Your task to perform on an android device: change keyboard looks Image 0: 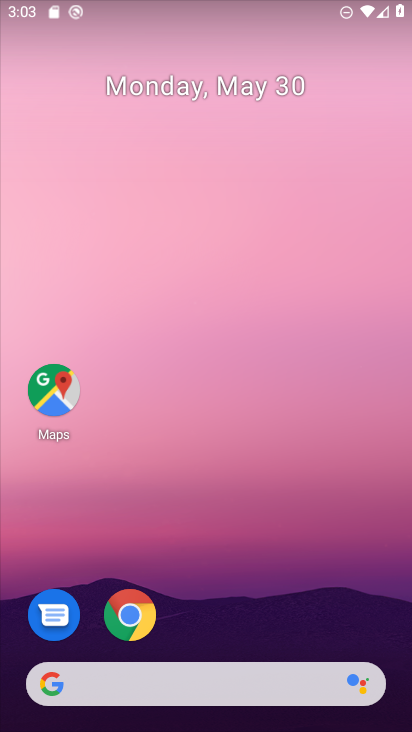
Step 0: drag from (366, 564) to (287, 16)
Your task to perform on an android device: change keyboard looks Image 1: 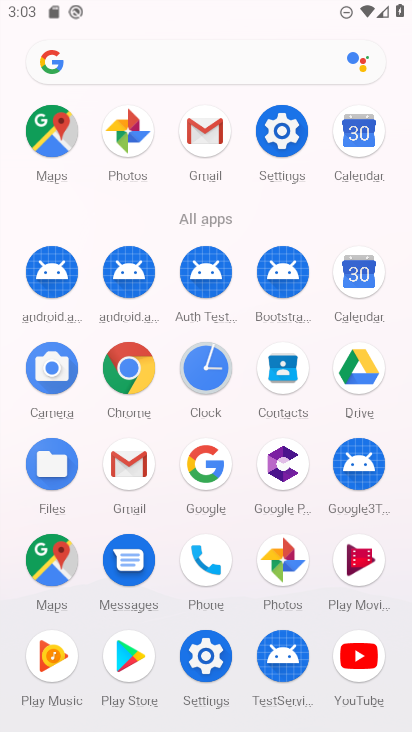
Step 1: click (284, 112)
Your task to perform on an android device: change keyboard looks Image 2: 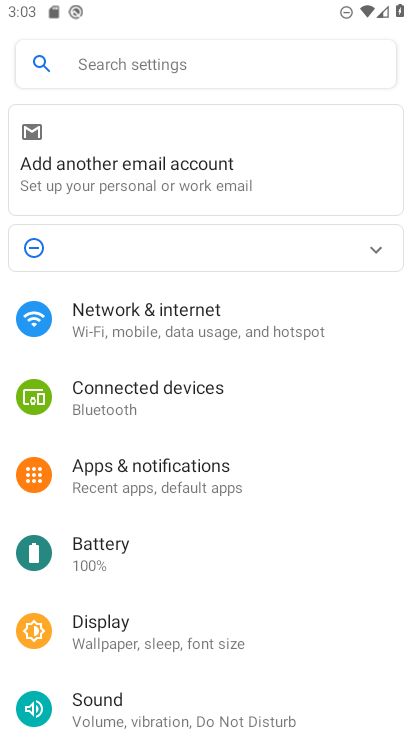
Step 2: drag from (280, 572) to (257, 42)
Your task to perform on an android device: change keyboard looks Image 3: 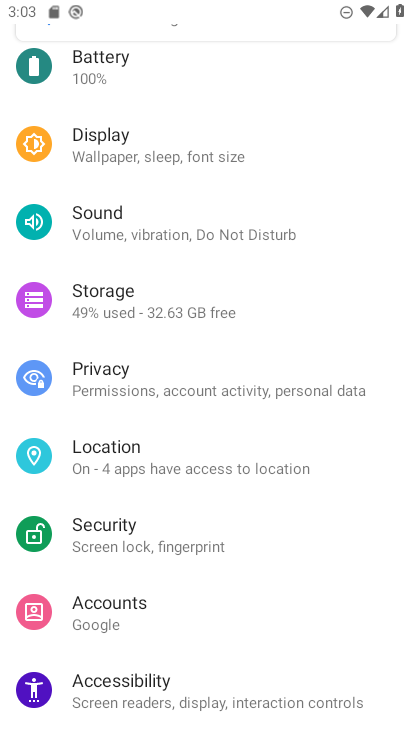
Step 3: drag from (279, 569) to (371, 63)
Your task to perform on an android device: change keyboard looks Image 4: 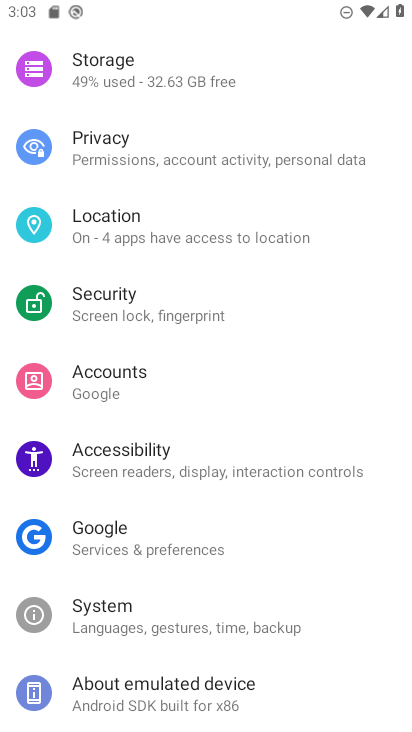
Step 4: click (168, 705)
Your task to perform on an android device: change keyboard looks Image 5: 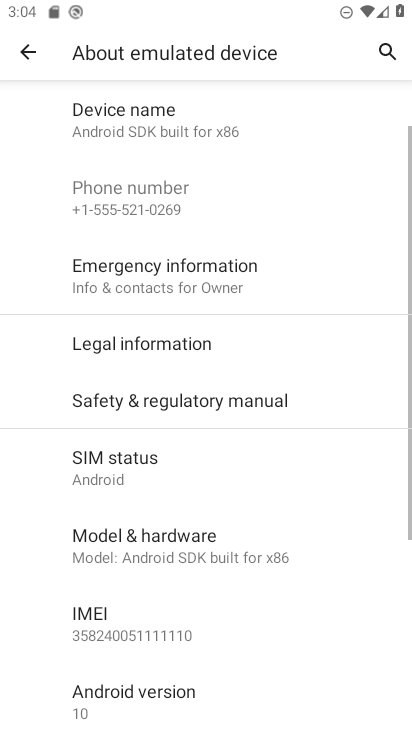
Step 5: drag from (173, 282) to (218, 498)
Your task to perform on an android device: change keyboard looks Image 6: 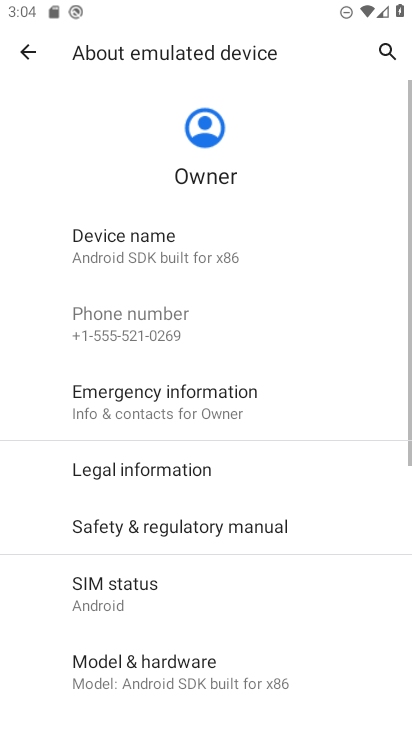
Step 6: click (26, 59)
Your task to perform on an android device: change keyboard looks Image 7: 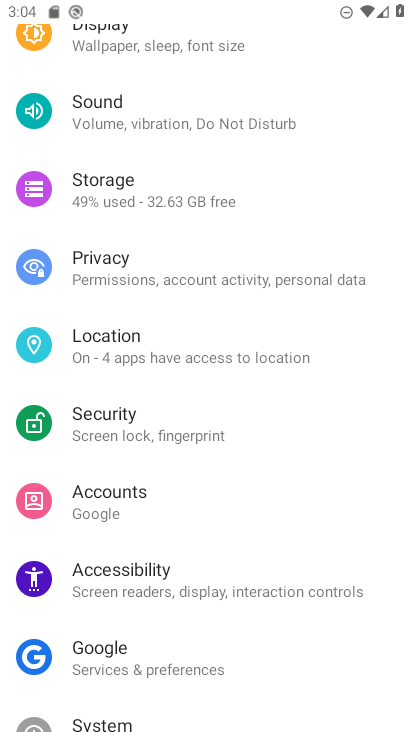
Step 7: drag from (216, 683) to (209, 488)
Your task to perform on an android device: change keyboard looks Image 8: 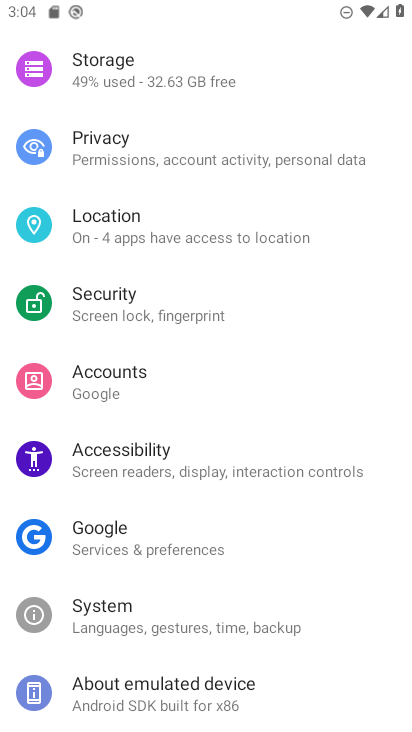
Step 8: click (173, 629)
Your task to perform on an android device: change keyboard looks Image 9: 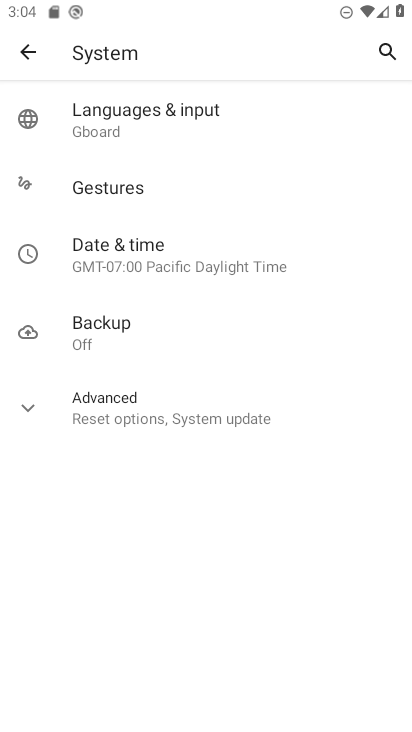
Step 9: click (173, 629)
Your task to perform on an android device: change keyboard looks Image 10: 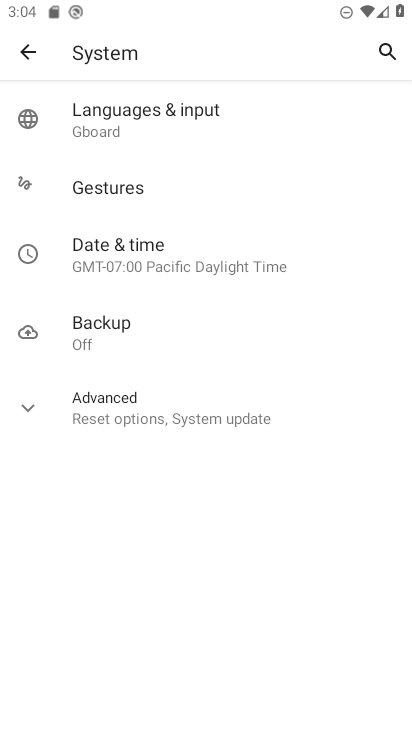
Step 10: click (132, 202)
Your task to perform on an android device: change keyboard looks Image 11: 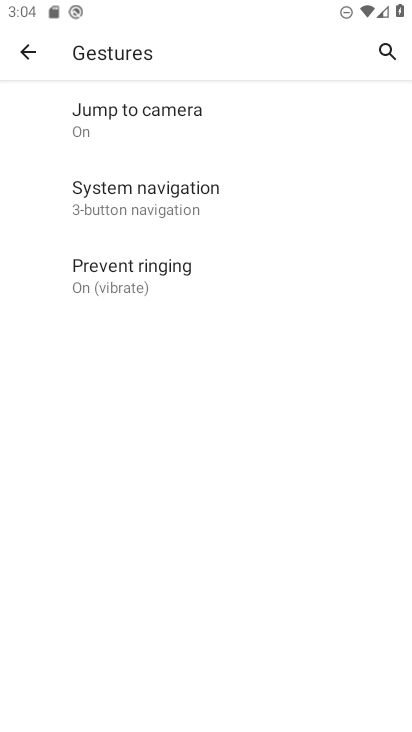
Step 11: click (23, 63)
Your task to perform on an android device: change keyboard looks Image 12: 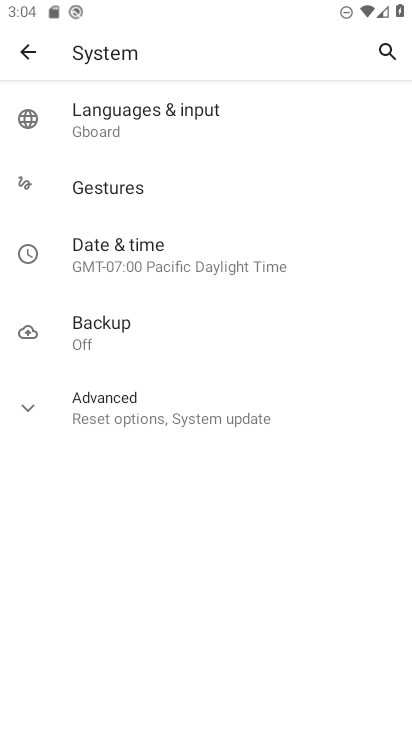
Step 12: click (166, 135)
Your task to perform on an android device: change keyboard looks Image 13: 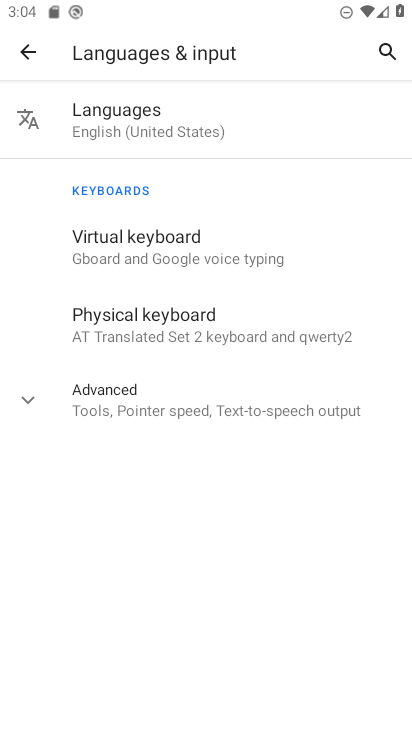
Step 13: click (166, 135)
Your task to perform on an android device: change keyboard looks Image 14: 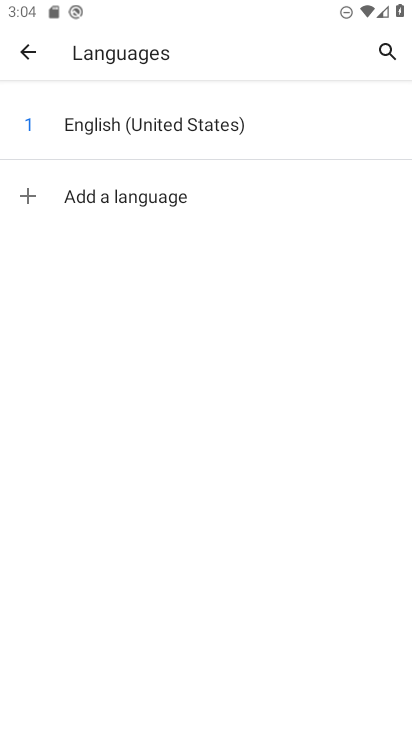
Step 14: click (212, 266)
Your task to perform on an android device: change keyboard looks Image 15: 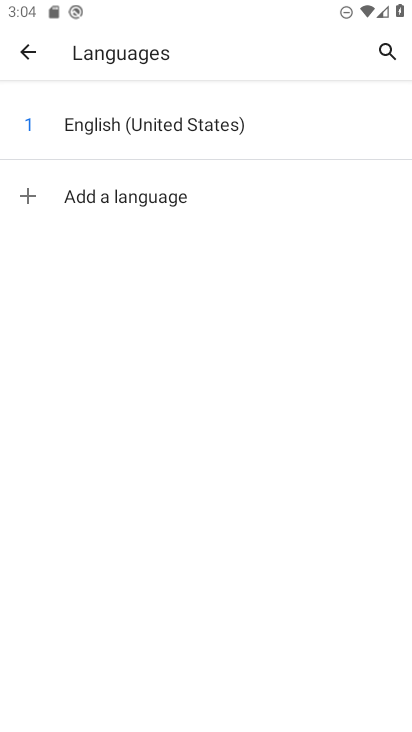
Step 15: click (22, 51)
Your task to perform on an android device: change keyboard looks Image 16: 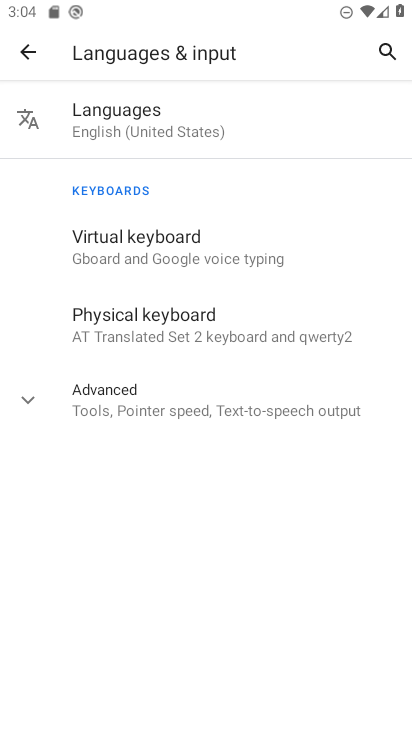
Step 16: click (160, 242)
Your task to perform on an android device: change keyboard looks Image 17: 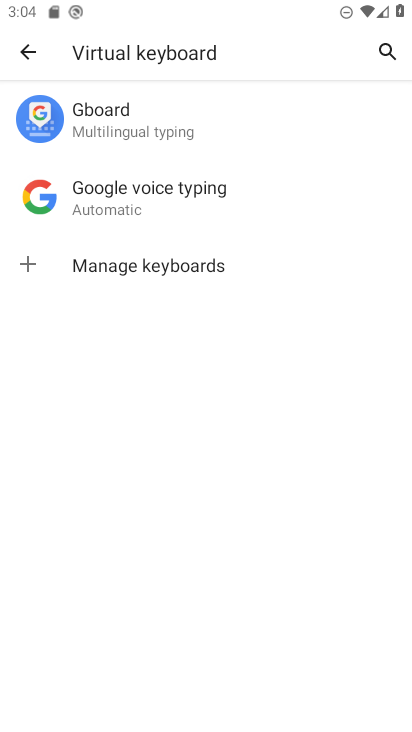
Step 17: click (149, 141)
Your task to perform on an android device: change keyboard looks Image 18: 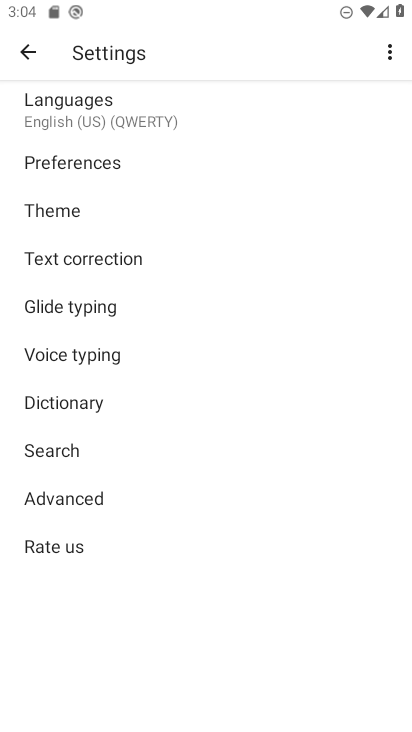
Step 18: click (131, 207)
Your task to perform on an android device: change keyboard looks Image 19: 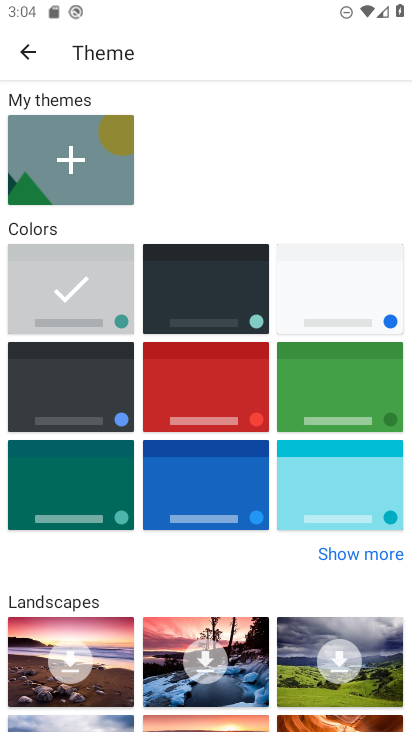
Step 19: click (326, 413)
Your task to perform on an android device: change keyboard looks Image 20: 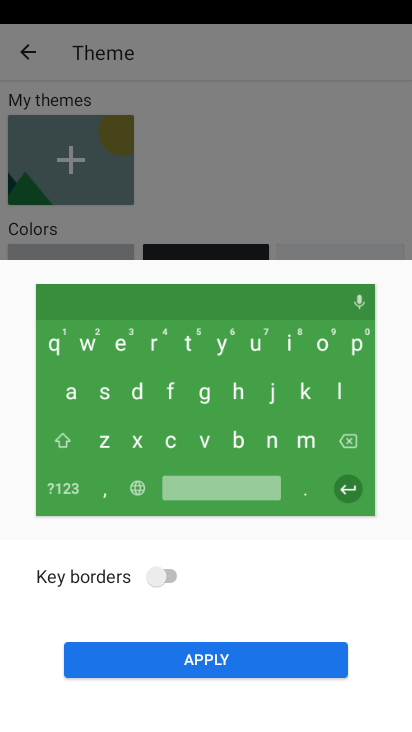
Step 20: click (272, 672)
Your task to perform on an android device: change keyboard looks Image 21: 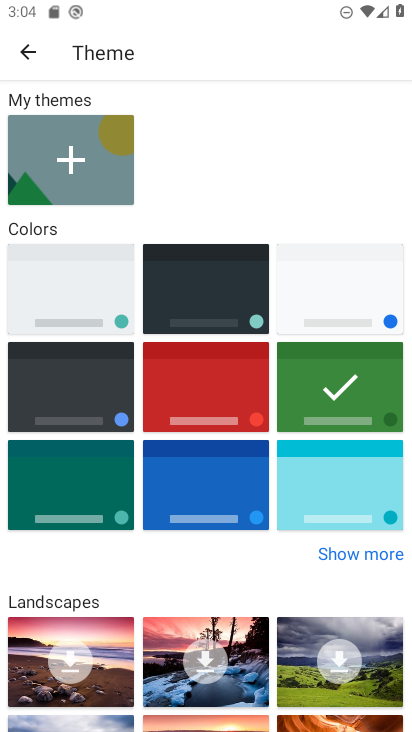
Step 21: task complete